Your task to perform on an android device: delete location history Image 0: 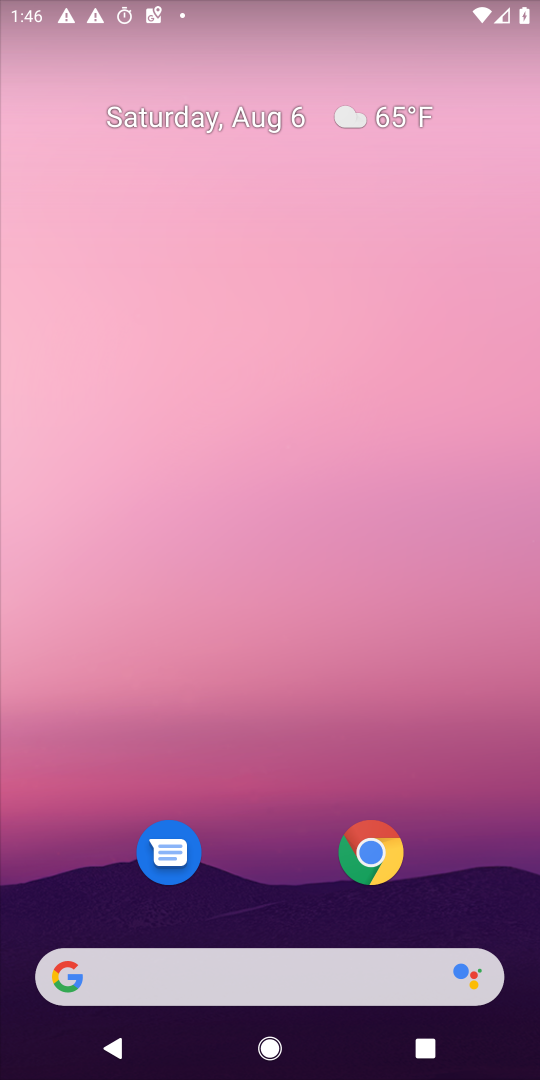
Step 0: drag from (448, 1017) to (395, 304)
Your task to perform on an android device: delete location history Image 1: 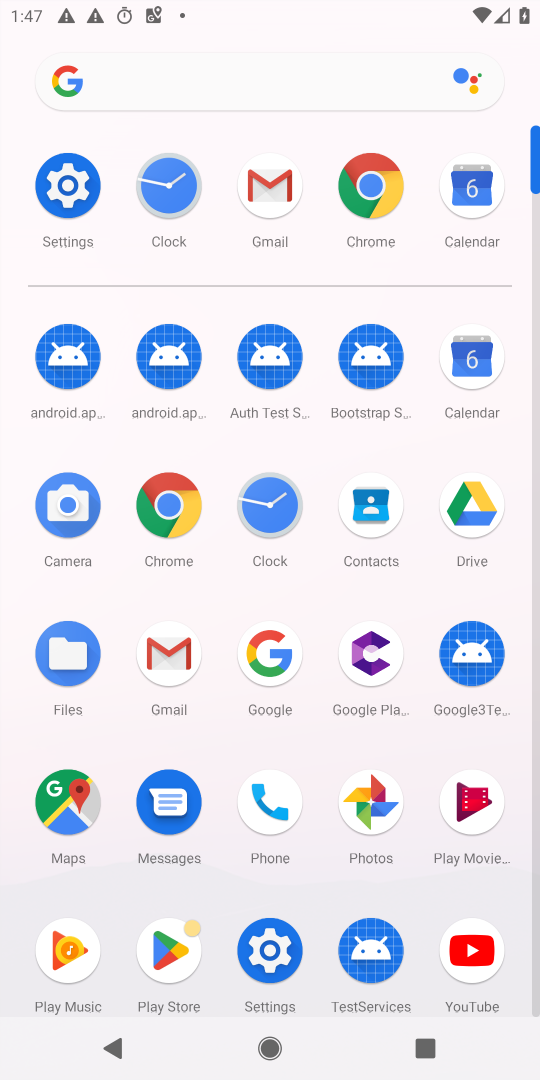
Step 1: click (80, 195)
Your task to perform on an android device: delete location history Image 2: 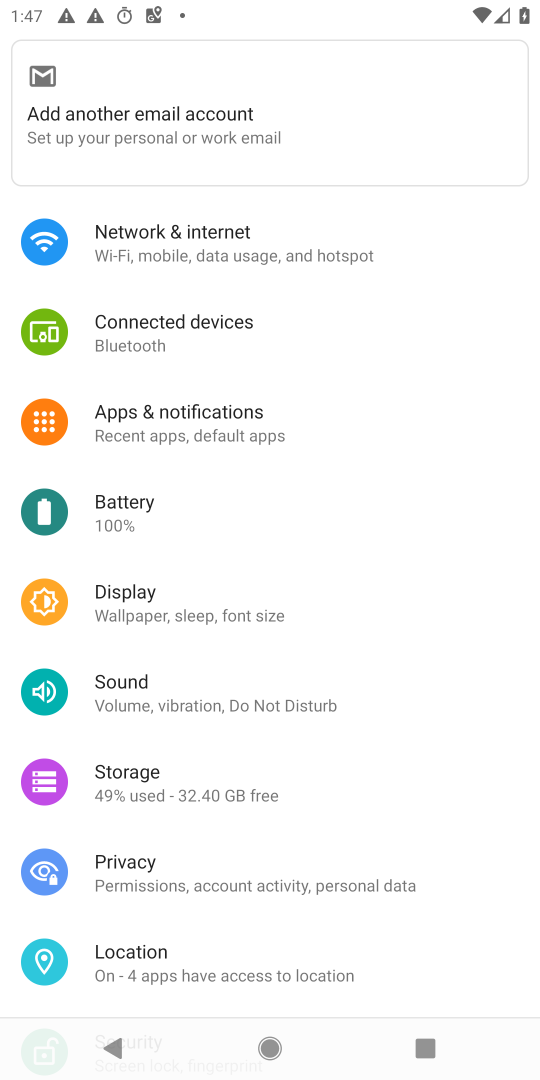
Step 2: click (215, 955)
Your task to perform on an android device: delete location history Image 3: 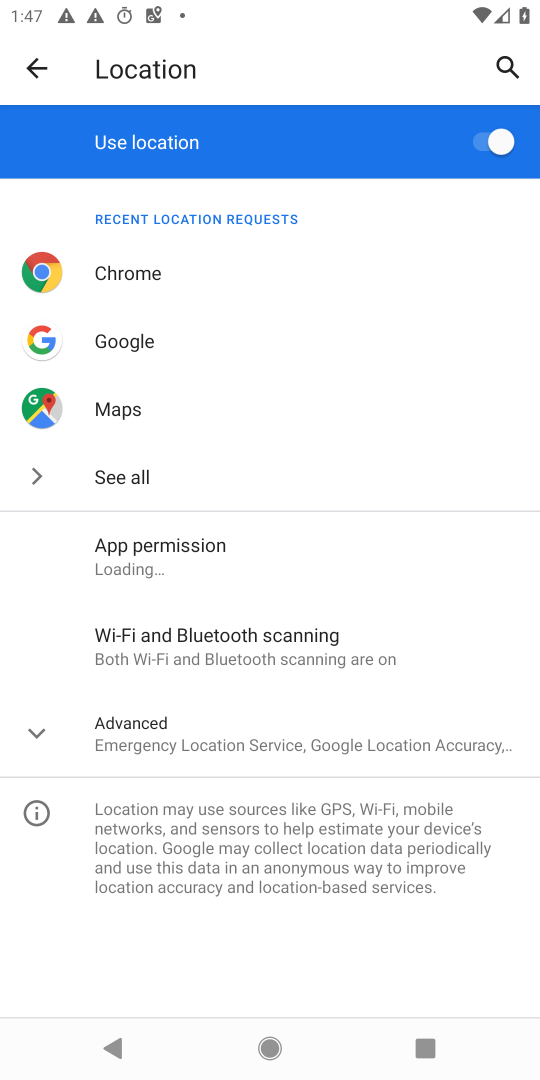
Step 3: click (63, 728)
Your task to perform on an android device: delete location history Image 4: 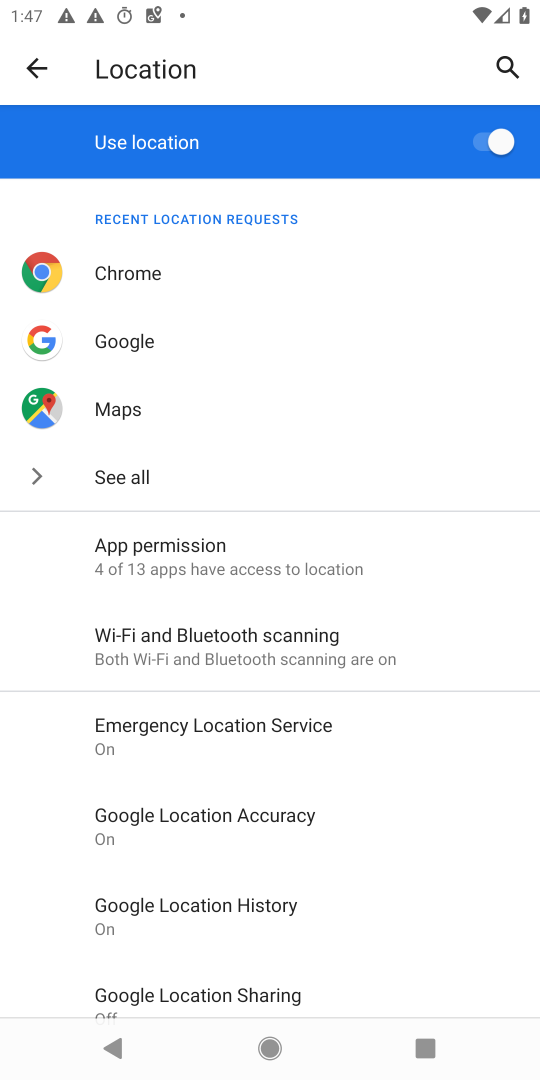
Step 4: click (211, 915)
Your task to perform on an android device: delete location history Image 5: 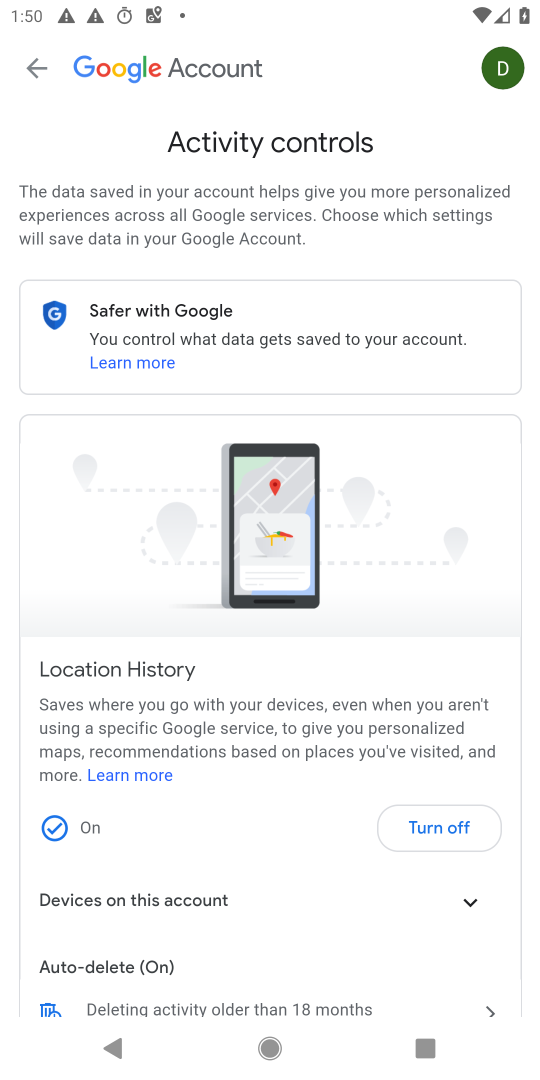
Step 5: task complete